Your task to perform on an android device: Play the last video I watched on Youtube Image 0: 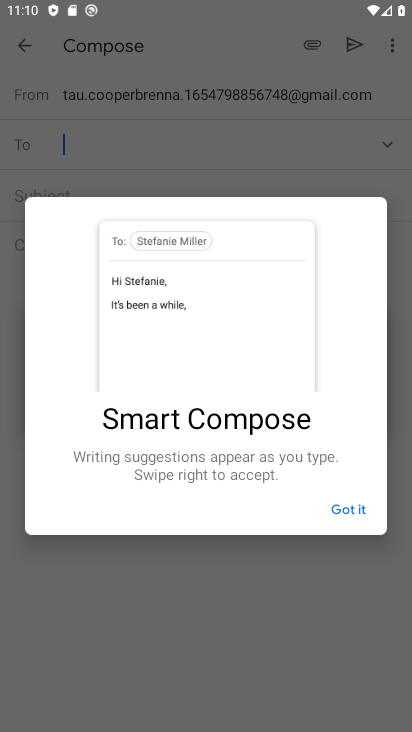
Step 0: click (340, 509)
Your task to perform on an android device: Play the last video I watched on Youtube Image 1: 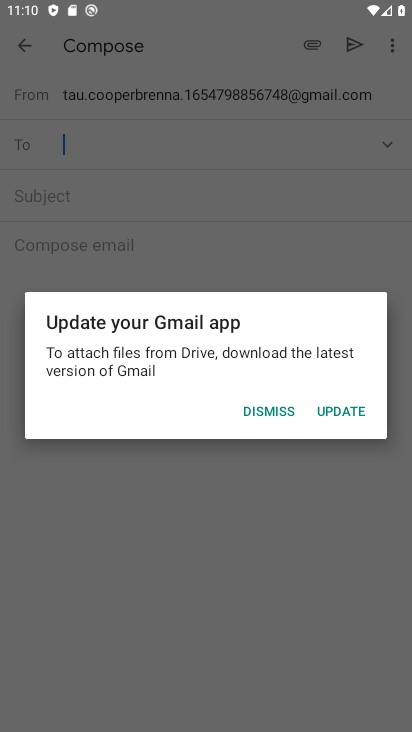
Step 1: click (280, 417)
Your task to perform on an android device: Play the last video I watched on Youtube Image 2: 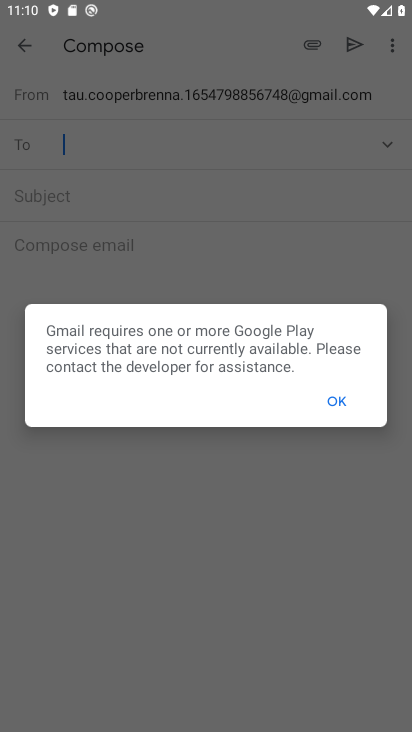
Step 2: click (330, 393)
Your task to perform on an android device: Play the last video I watched on Youtube Image 3: 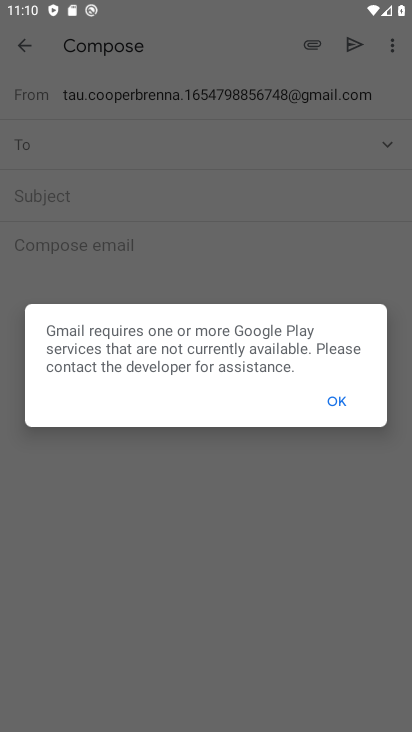
Step 3: click (330, 392)
Your task to perform on an android device: Play the last video I watched on Youtube Image 4: 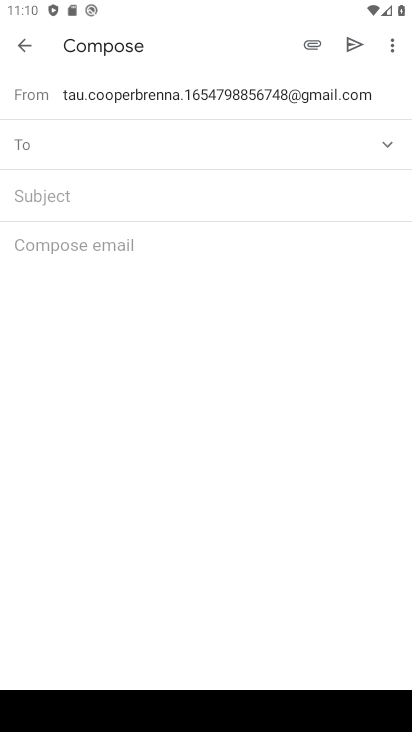
Step 4: click (21, 46)
Your task to perform on an android device: Play the last video I watched on Youtube Image 5: 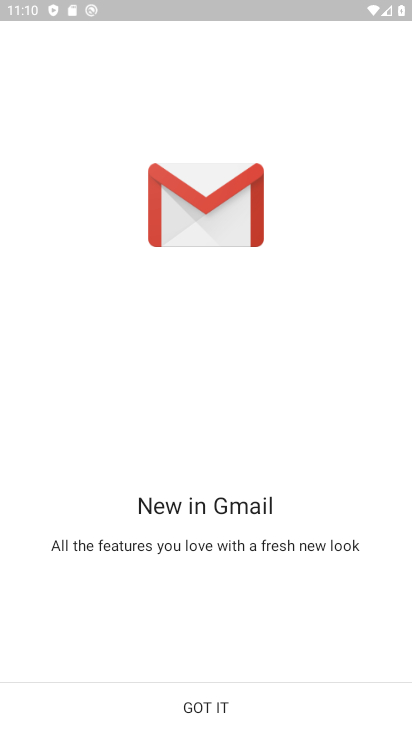
Step 5: press back button
Your task to perform on an android device: Play the last video I watched on Youtube Image 6: 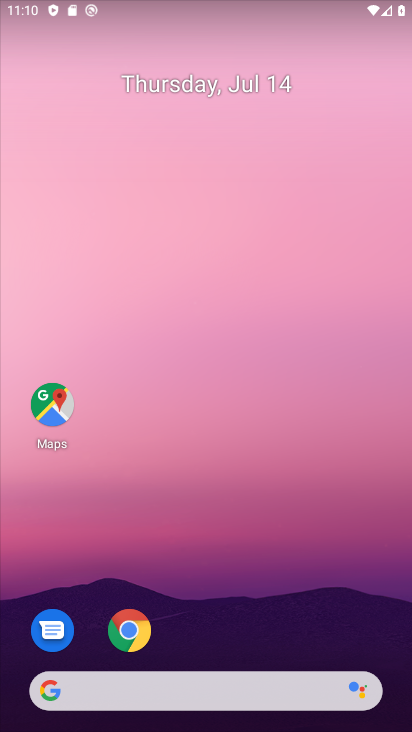
Step 6: drag from (227, 304) to (204, 10)
Your task to perform on an android device: Play the last video I watched on Youtube Image 7: 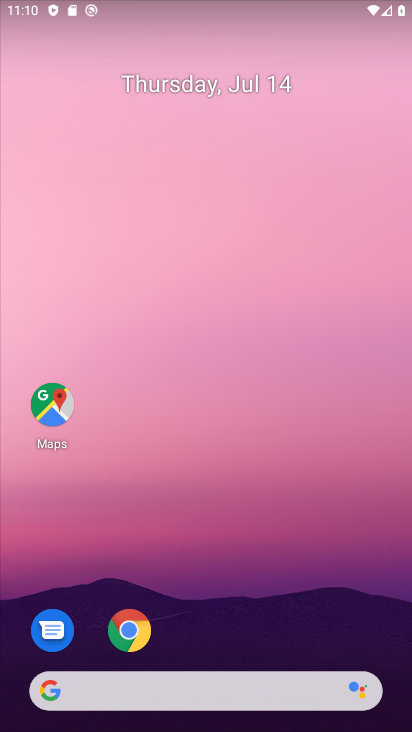
Step 7: click (155, 128)
Your task to perform on an android device: Play the last video I watched on Youtube Image 8: 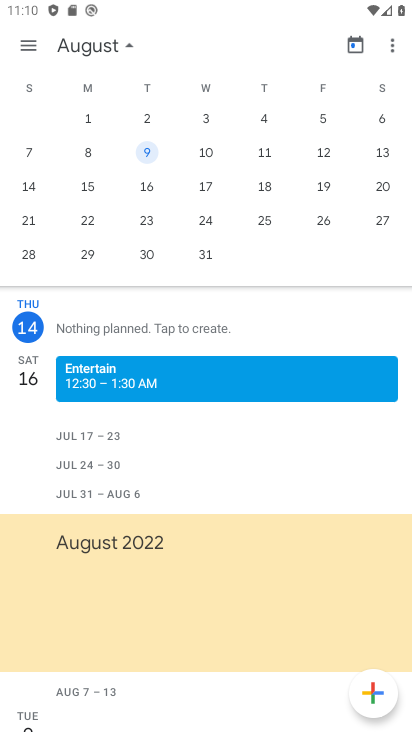
Step 8: drag from (189, 568) to (168, 35)
Your task to perform on an android device: Play the last video I watched on Youtube Image 9: 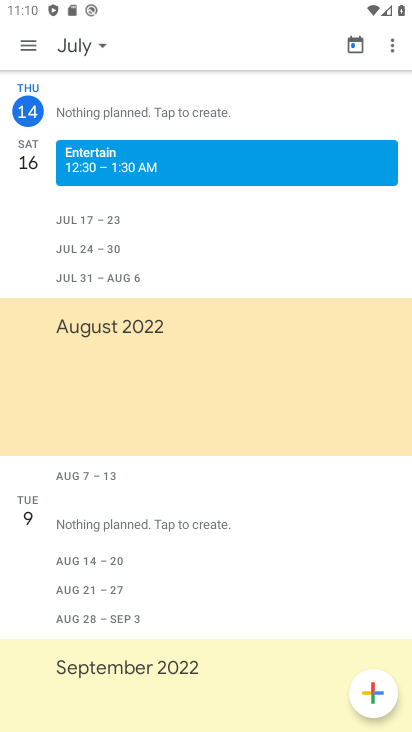
Step 9: press home button
Your task to perform on an android device: Play the last video I watched on Youtube Image 10: 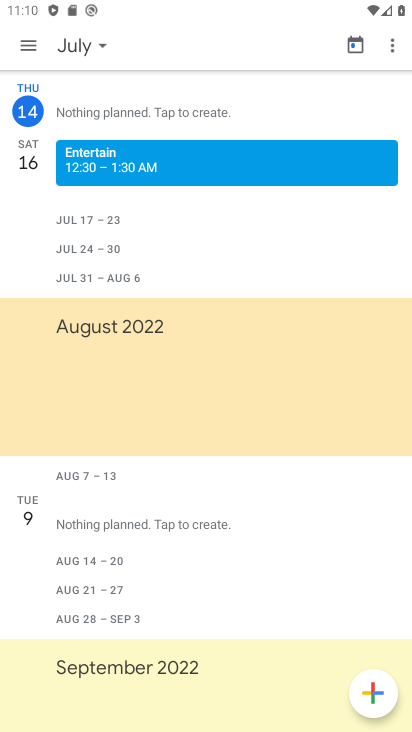
Step 10: press home button
Your task to perform on an android device: Play the last video I watched on Youtube Image 11: 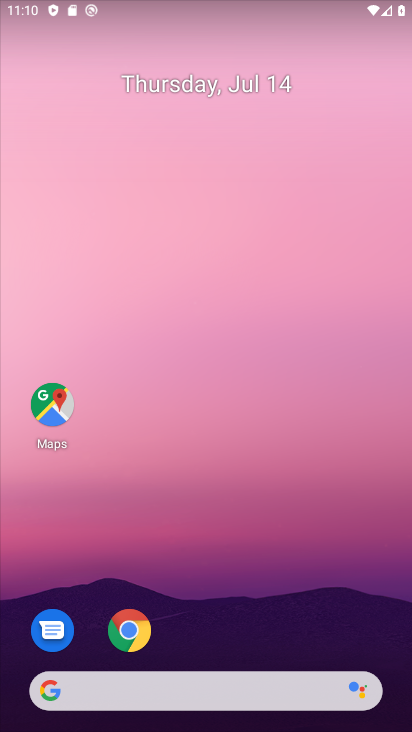
Step 11: drag from (219, 616) to (151, 122)
Your task to perform on an android device: Play the last video I watched on Youtube Image 12: 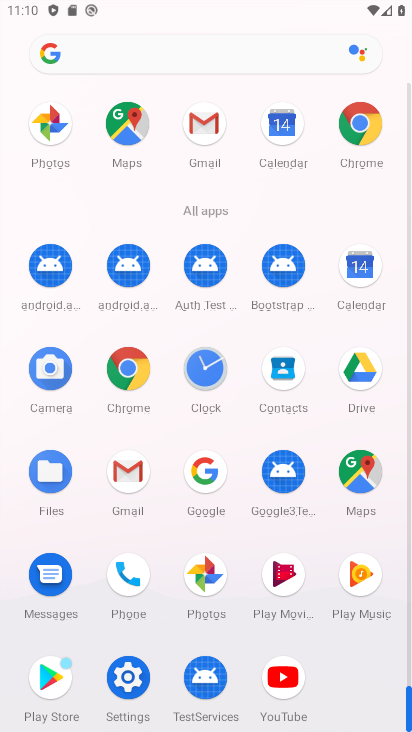
Step 12: click (280, 679)
Your task to perform on an android device: Play the last video I watched on Youtube Image 13: 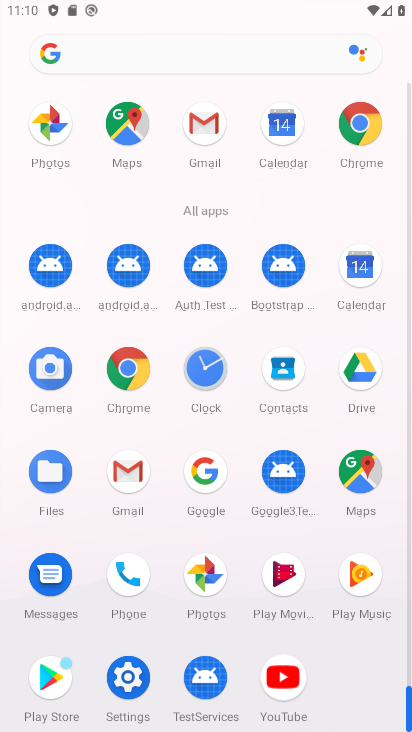
Step 13: click (280, 679)
Your task to perform on an android device: Play the last video I watched on Youtube Image 14: 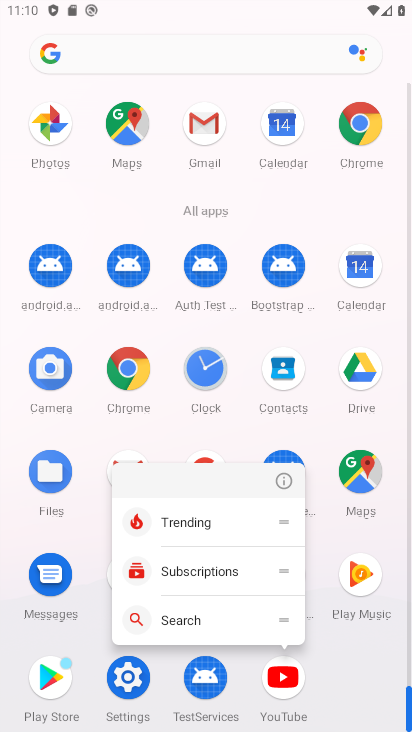
Step 14: click (273, 674)
Your task to perform on an android device: Play the last video I watched on Youtube Image 15: 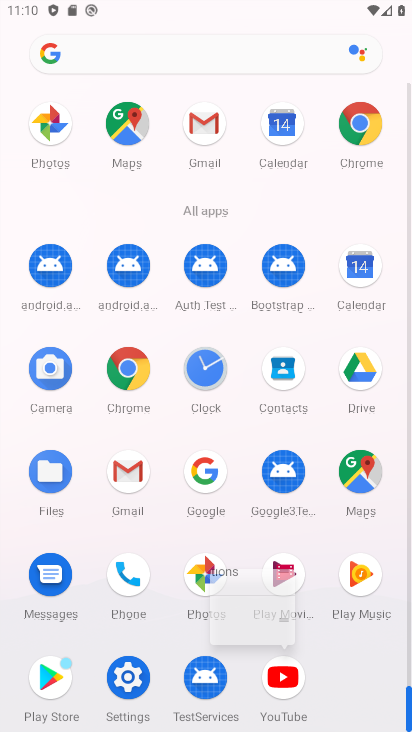
Step 15: click (273, 674)
Your task to perform on an android device: Play the last video I watched on Youtube Image 16: 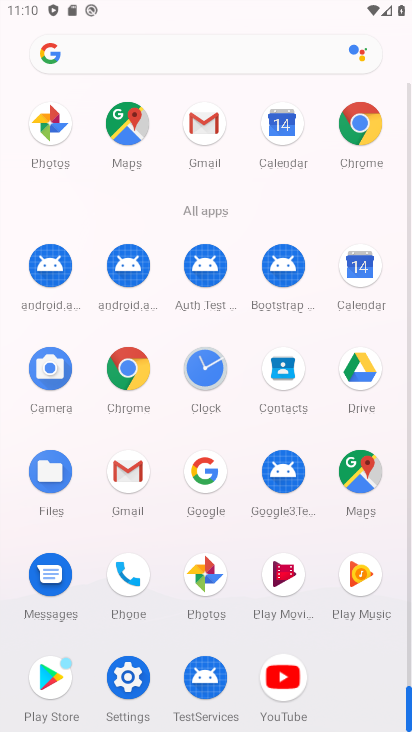
Step 16: click (277, 675)
Your task to perform on an android device: Play the last video I watched on Youtube Image 17: 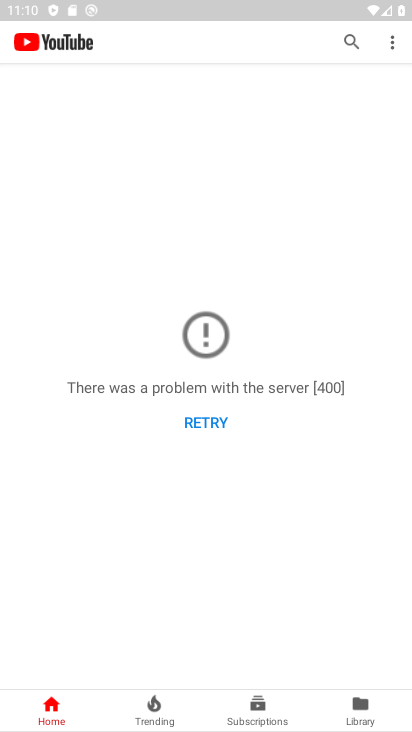
Step 17: task complete